Your task to perform on an android device: add a contact in the contacts app Image 0: 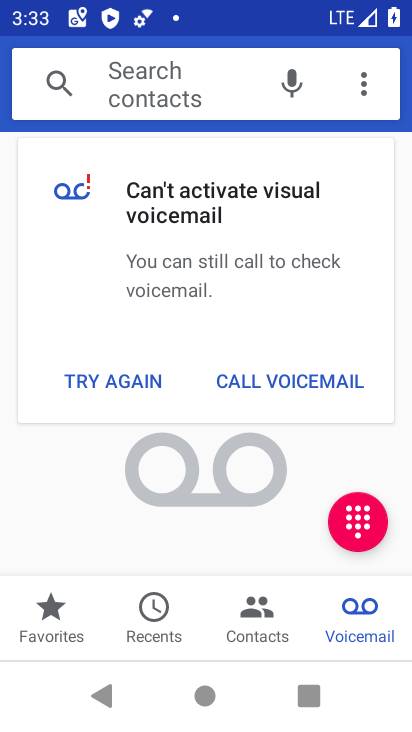
Step 0: press home button
Your task to perform on an android device: add a contact in the contacts app Image 1: 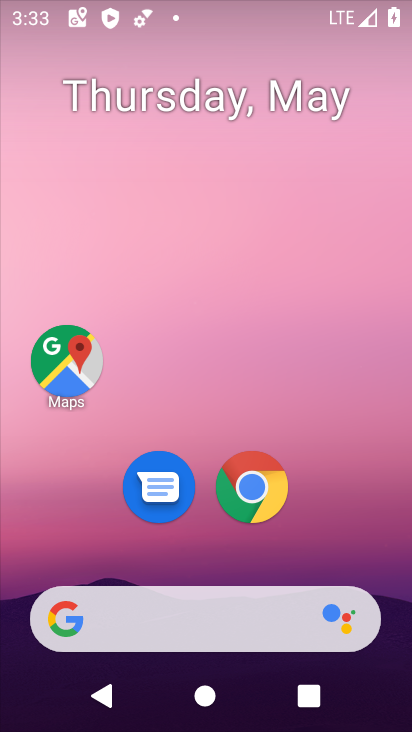
Step 1: drag from (253, 616) to (349, 144)
Your task to perform on an android device: add a contact in the contacts app Image 2: 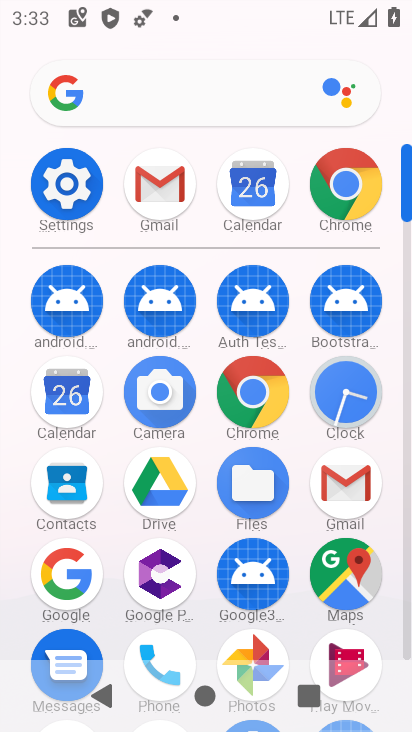
Step 2: click (60, 476)
Your task to perform on an android device: add a contact in the contacts app Image 3: 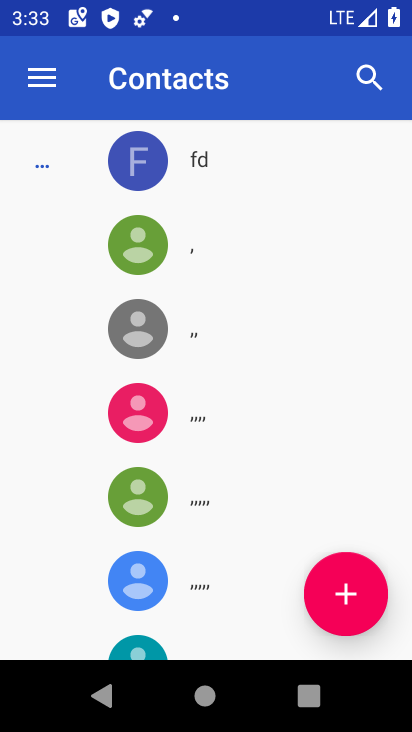
Step 3: click (337, 587)
Your task to perform on an android device: add a contact in the contacts app Image 4: 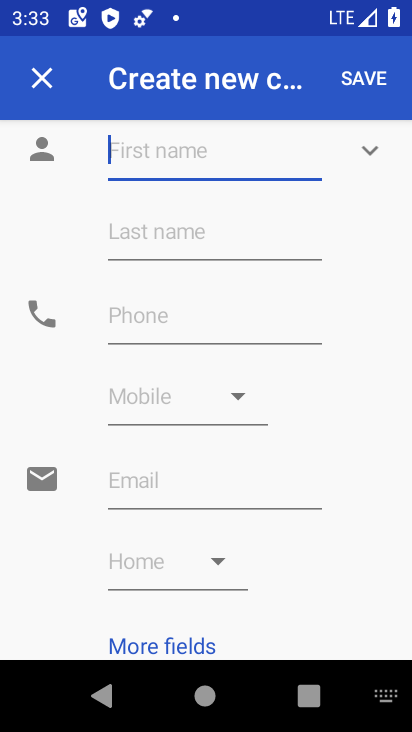
Step 4: type "ghyhbgfg"
Your task to perform on an android device: add a contact in the contacts app Image 5: 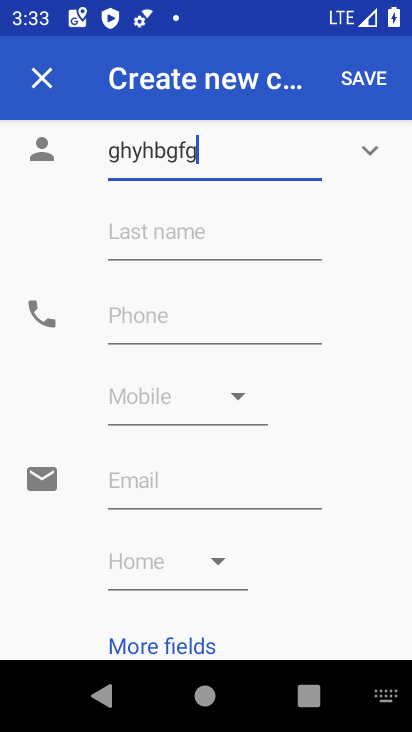
Step 5: click (191, 310)
Your task to perform on an android device: add a contact in the contacts app Image 6: 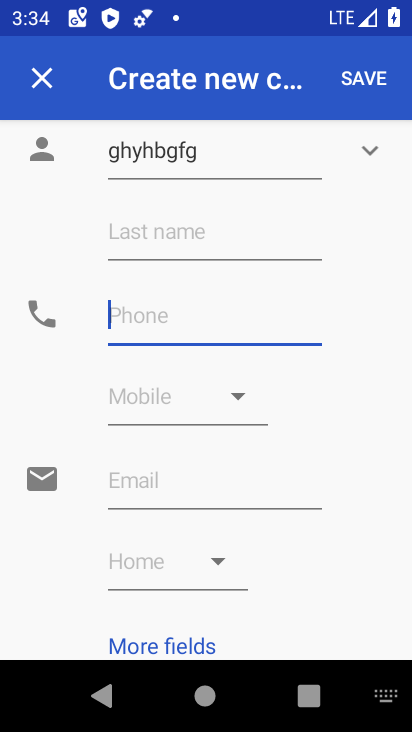
Step 6: type "8767558756"
Your task to perform on an android device: add a contact in the contacts app Image 7: 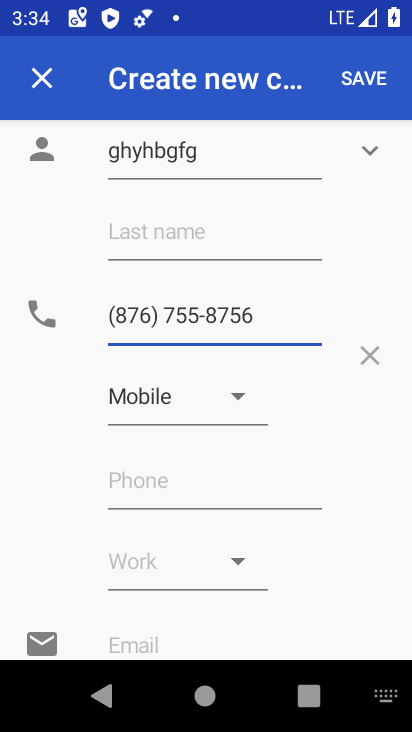
Step 7: click (388, 71)
Your task to perform on an android device: add a contact in the contacts app Image 8: 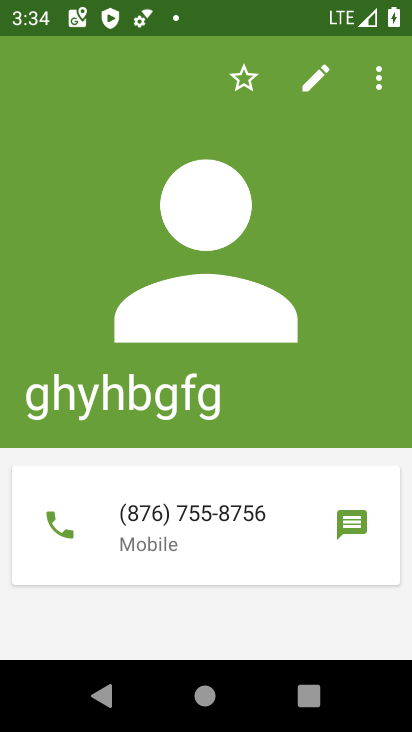
Step 8: task complete